Your task to perform on an android device: Show me popular videos on Youtube Image 0: 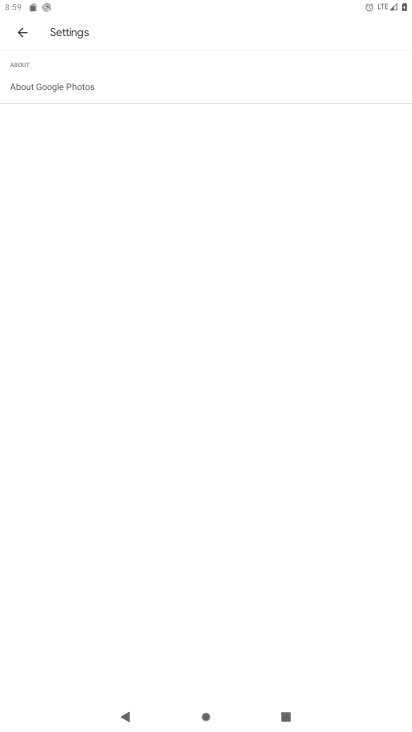
Step 0: press home button
Your task to perform on an android device: Show me popular videos on Youtube Image 1: 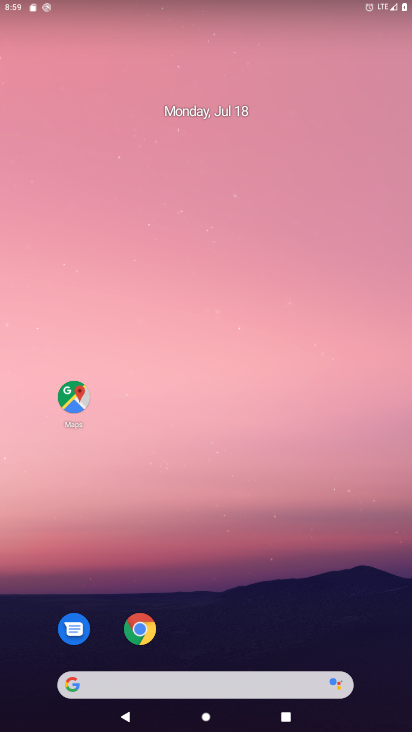
Step 1: drag from (246, 647) to (181, 19)
Your task to perform on an android device: Show me popular videos on Youtube Image 2: 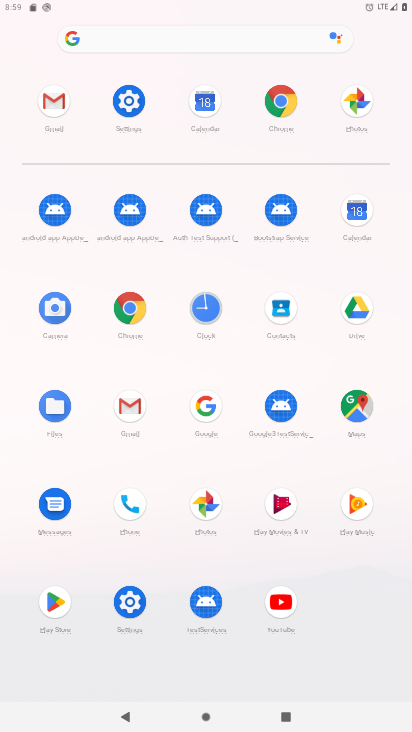
Step 2: click (269, 593)
Your task to perform on an android device: Show me popular videos on Youtube Image 3: 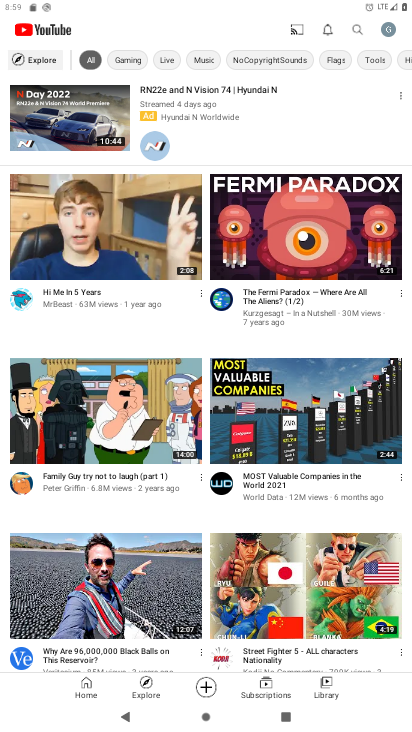
Step 3: click (33, 53)
Your task to perform on an android device: Show me popular videos on Youtube Image 4: 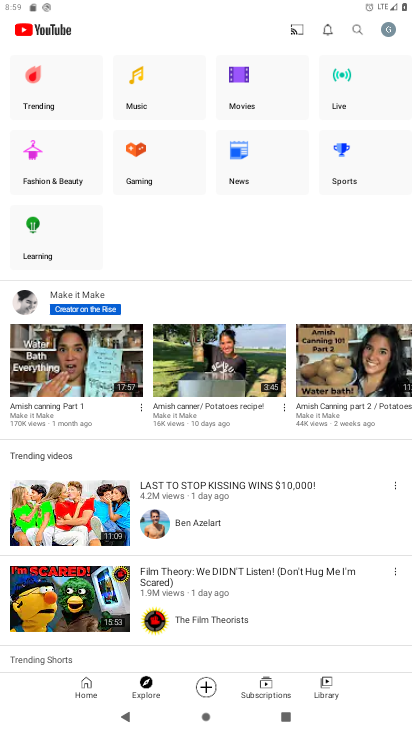
Step 4: click (52, 100)
Your task to perform on an android device: Show me popular videos on Youtube Image 5: 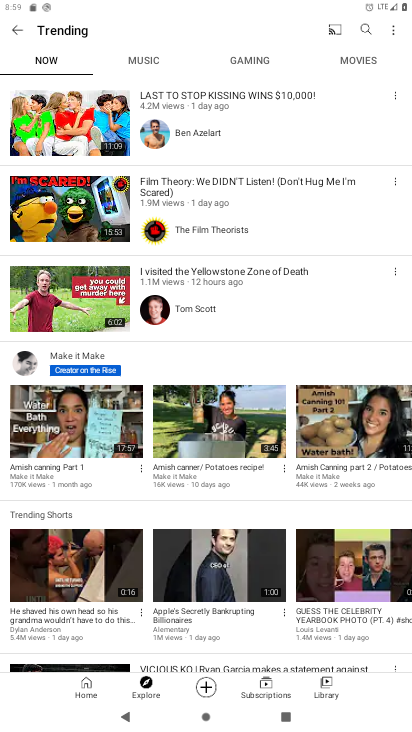
Step 5: task complete